Your task to perform on an android device: Search for the best rated headphones on Walmart Image 0: 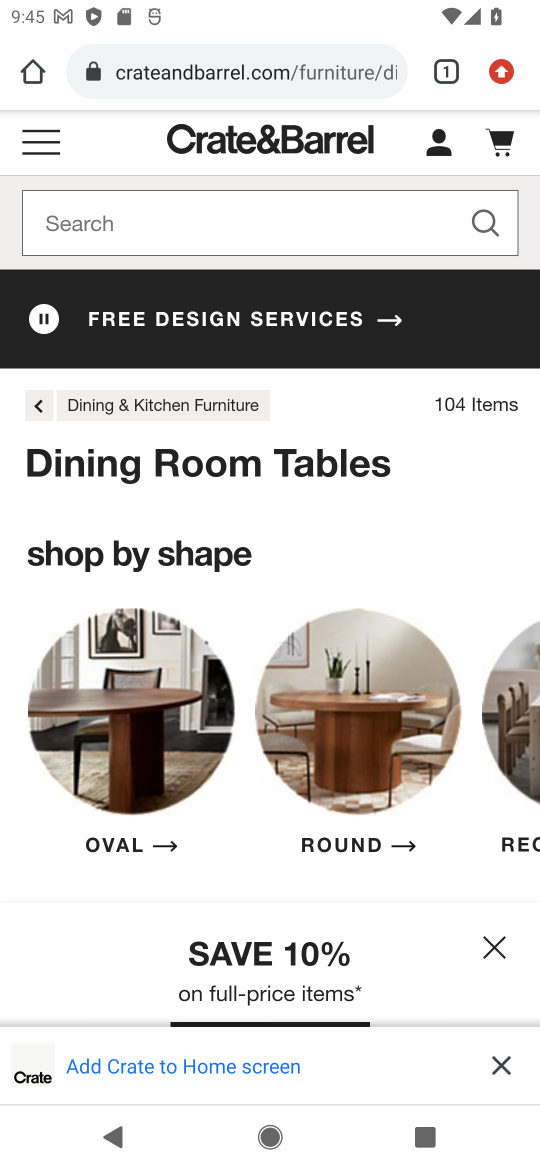
Step 0: press home button
Your task to perform on an android device: Search for the best rated headphones on Walmart Image 1: 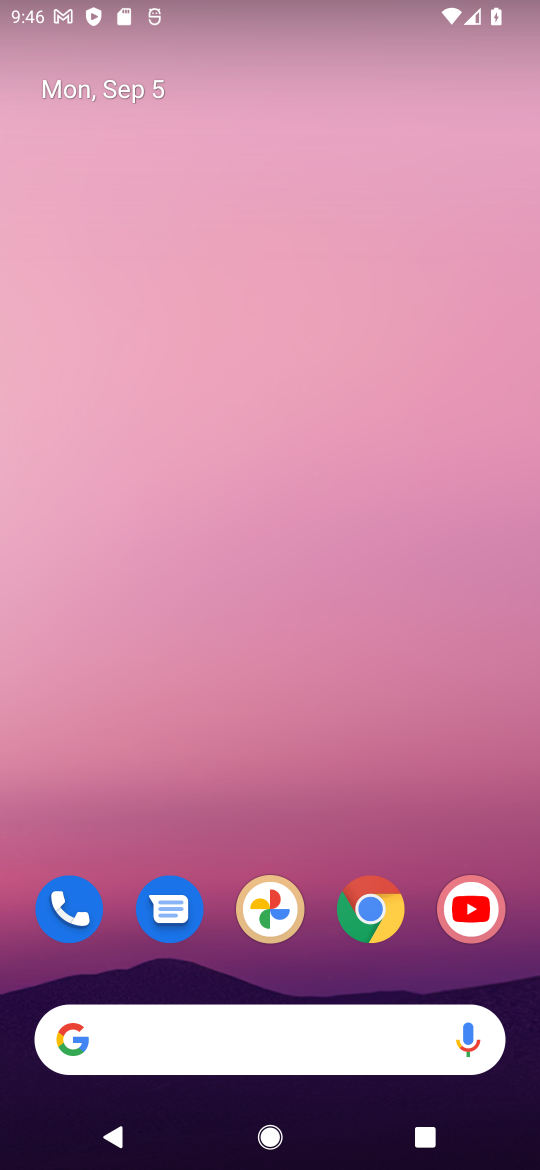
Step 1: click (371, 898)
Your task to perform on an android device: Search for the best rated headphones on Walmart Image 2: 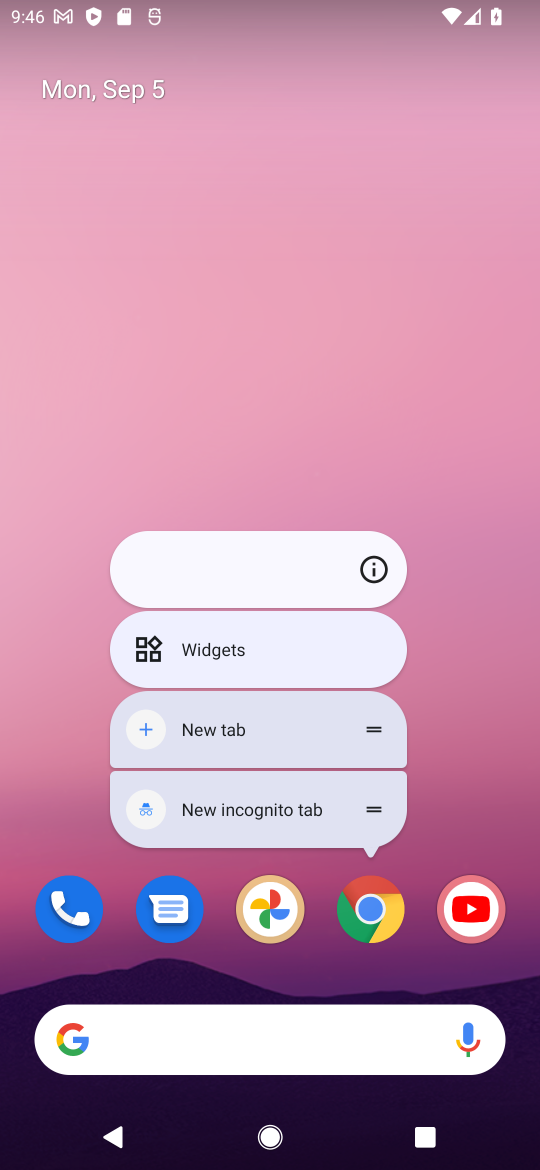
Step 2: click (372, 904)
Your task to perform on an android device: Search for the best rated headphones on Walmart Image 3: 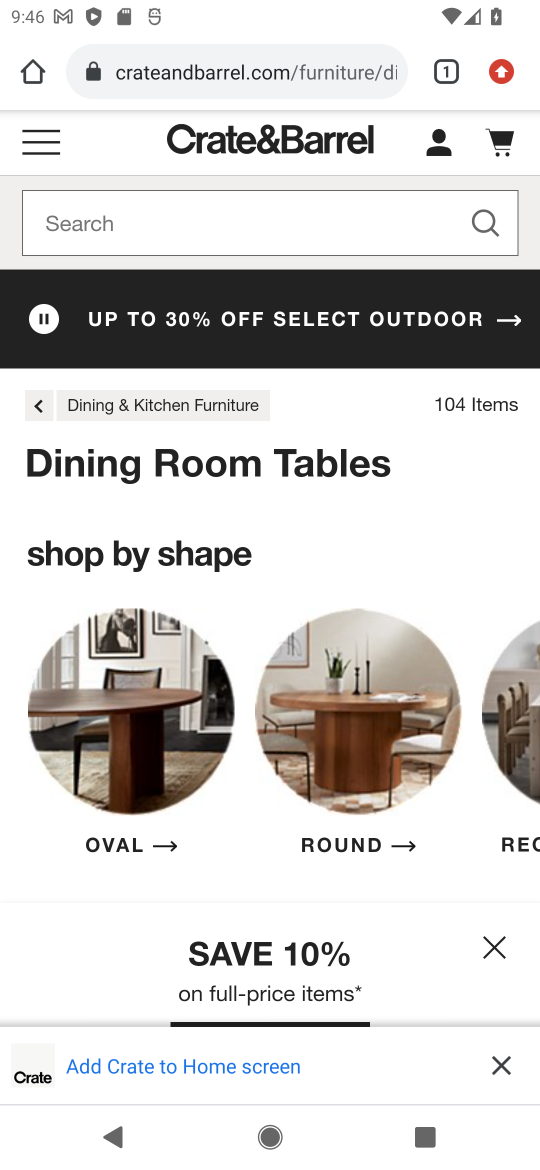
Step 3: click (272, 83)
Your task to perform on an android device: Search for the best rated headphones on Walmart Image 4: 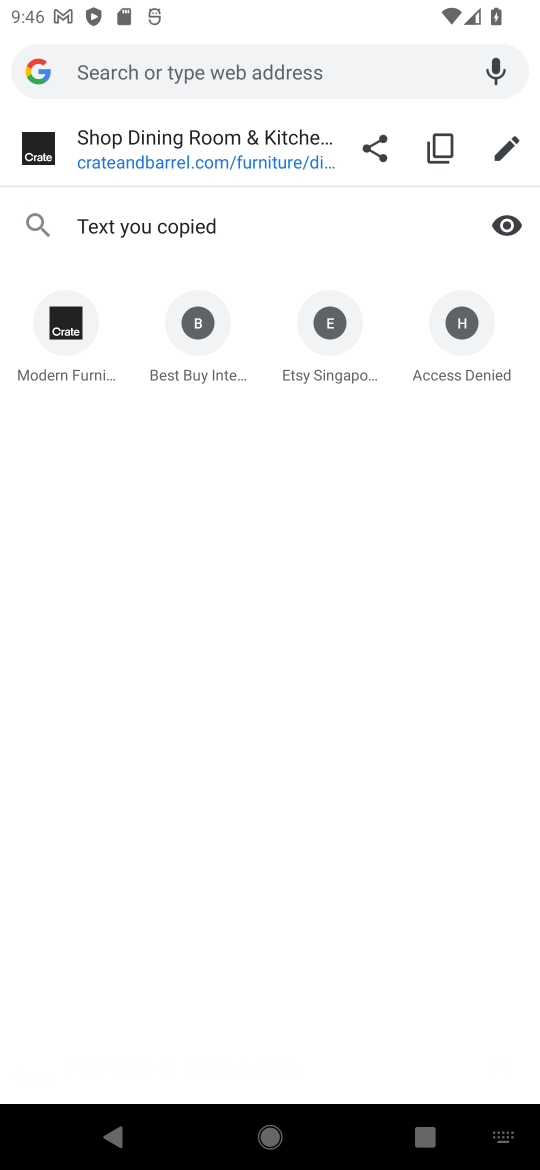
Step 4: type "walmart"
Your task to perform on an android device: Search for the best rated headphones on Walmart Image 5: 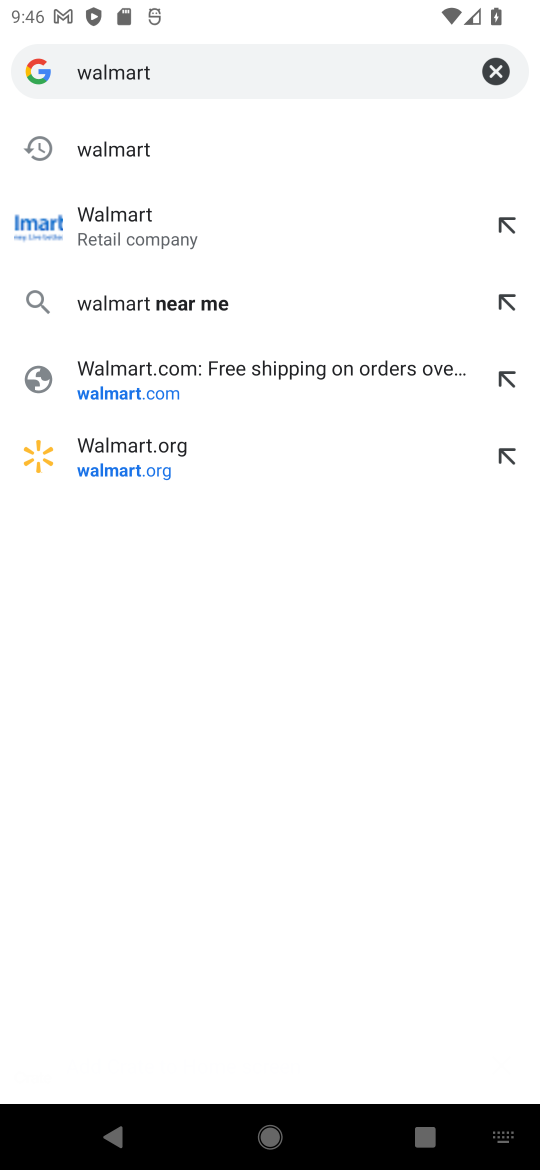
Step 5: click (164, 377)
Your task to perform on an android device: Search for the best rated headphones on Walmart Image 6: 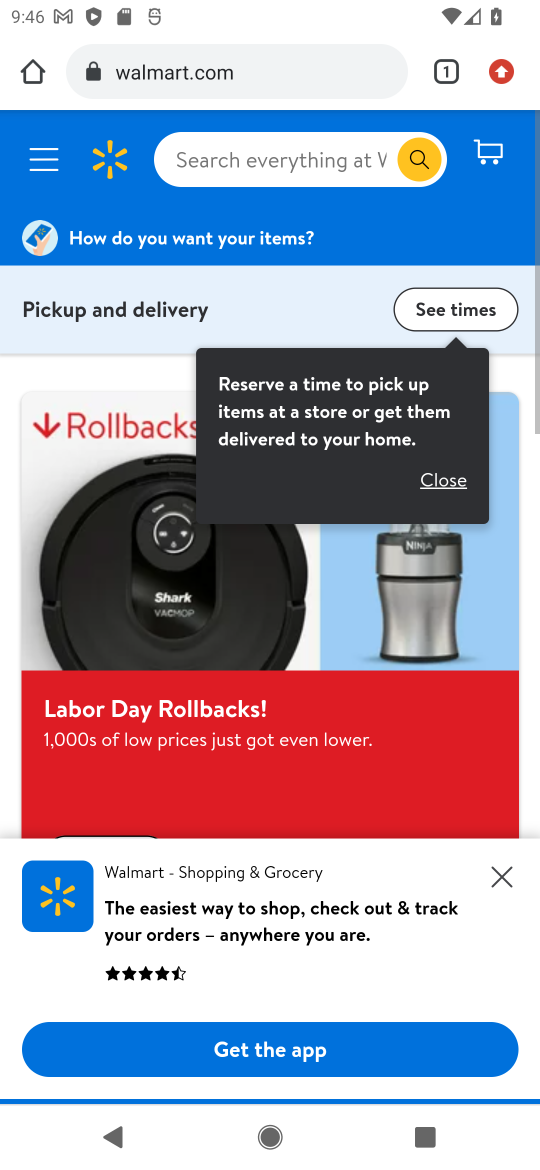
Step 6: click (293, 166)
Your task to perform on an android device: Search for the best rated headphones on Walmart Image 7: 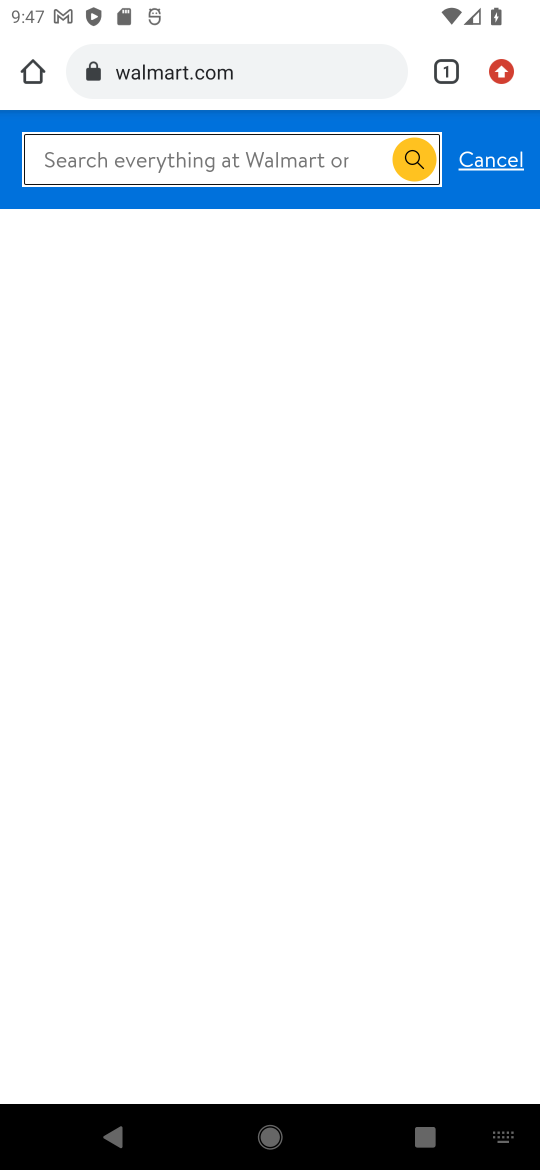
Step 7: type "best rated headphones"
Your task to perform on an android device: Search for the best rated headphones on Walmart Image 8: 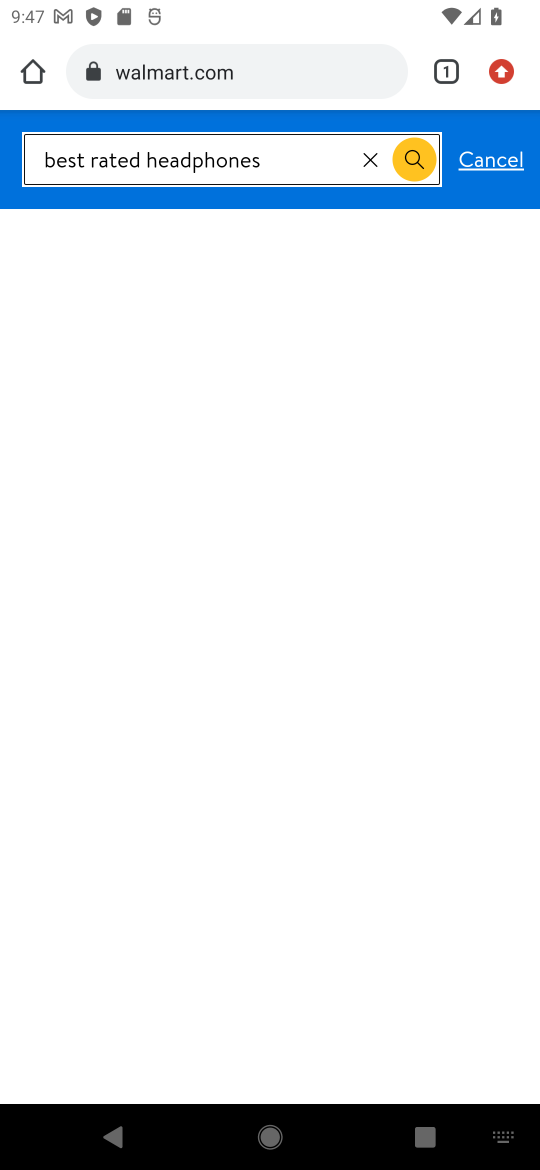
Step 8: click (409, 157)
Your task to perform on an android device: Search for the best rated headphones on Walmart Image 9: 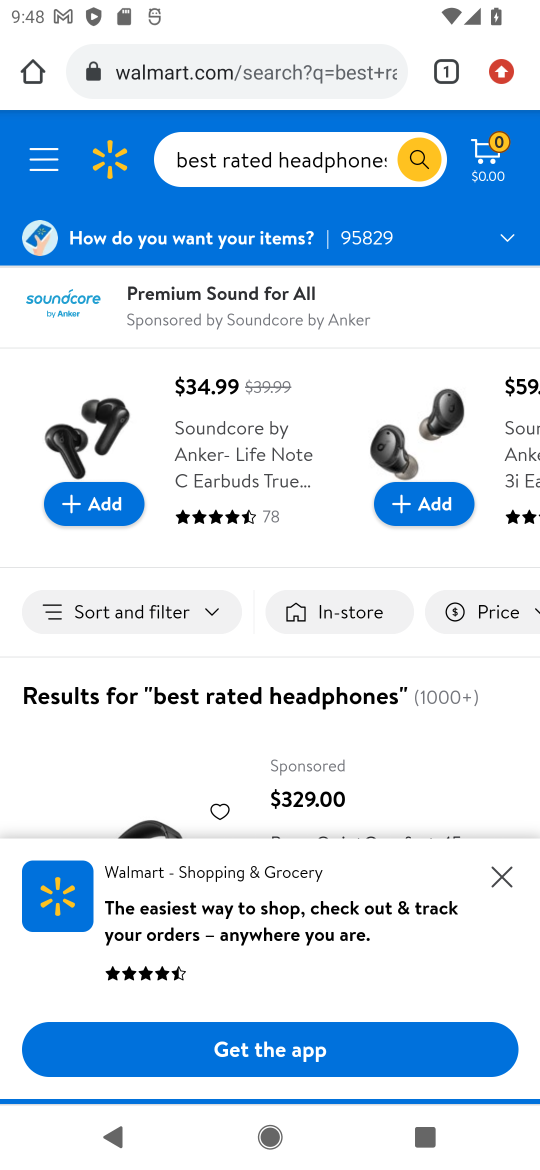
Step 9: task complete